Your task to perform on an android device: Go to Maps Image 0: 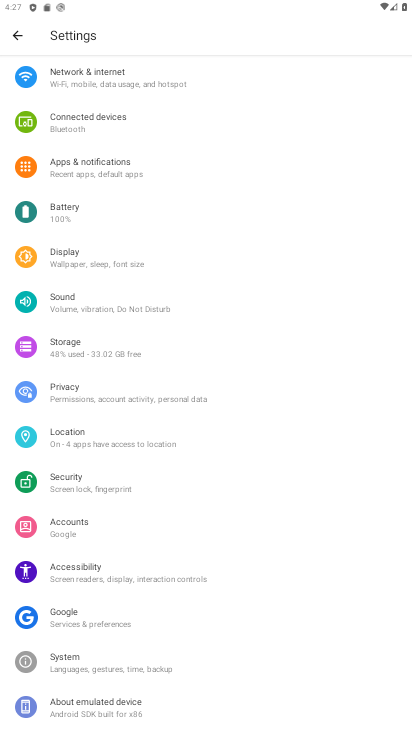
Step 0: press home button
Your task to perform on an android device: Go to Maps Image 1: 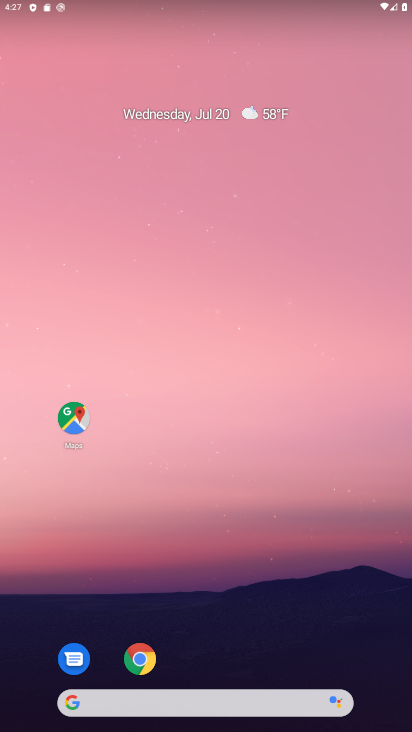
Step 1: drag from (216, 696) to (234, 23)
Your task to perform on an android device: Go to Maps Image 2: 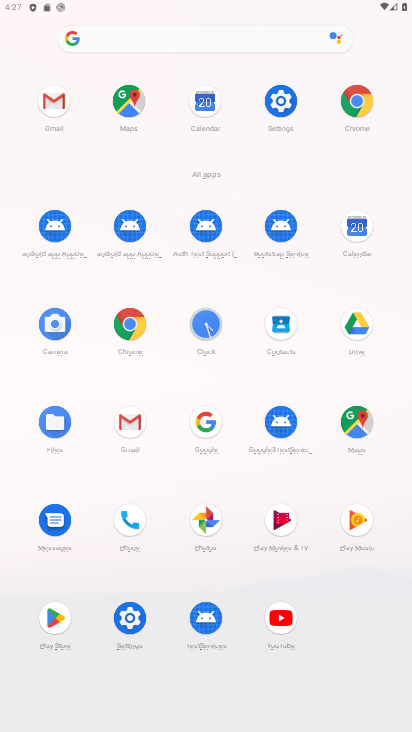
Step 2: click (364, 428)
Your task to perform on an android device: Go to Maps Image 3: 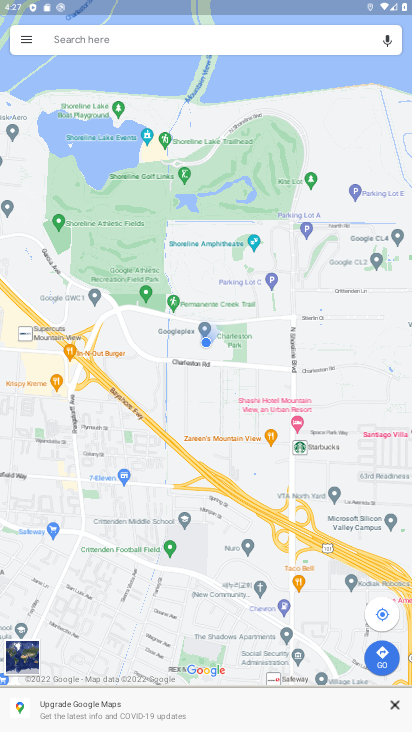
Step 3: task complete